Your task to perform on an android device: Go to CNN.com Image 0: 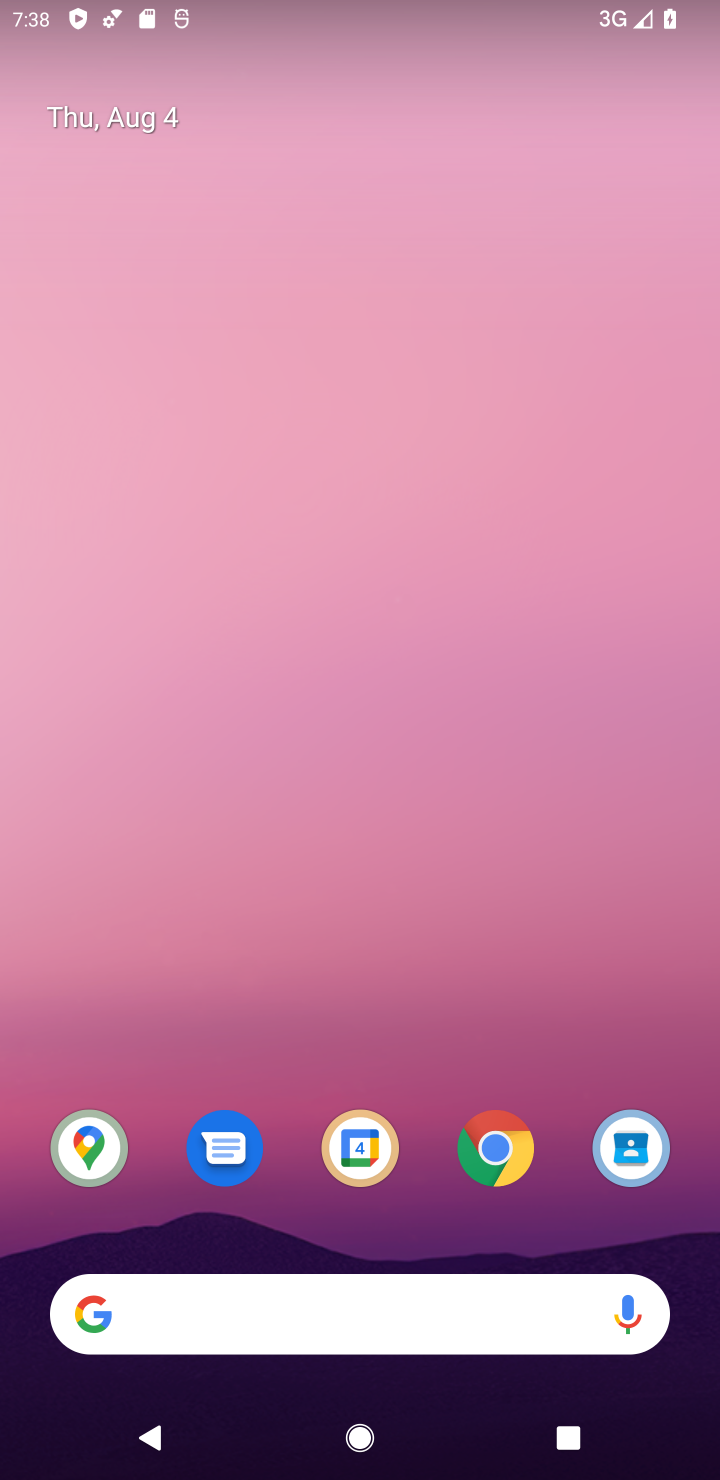
Step 0: click (479, 1149)
Your task to perform on an android device: Go to CNN.com Image 1: 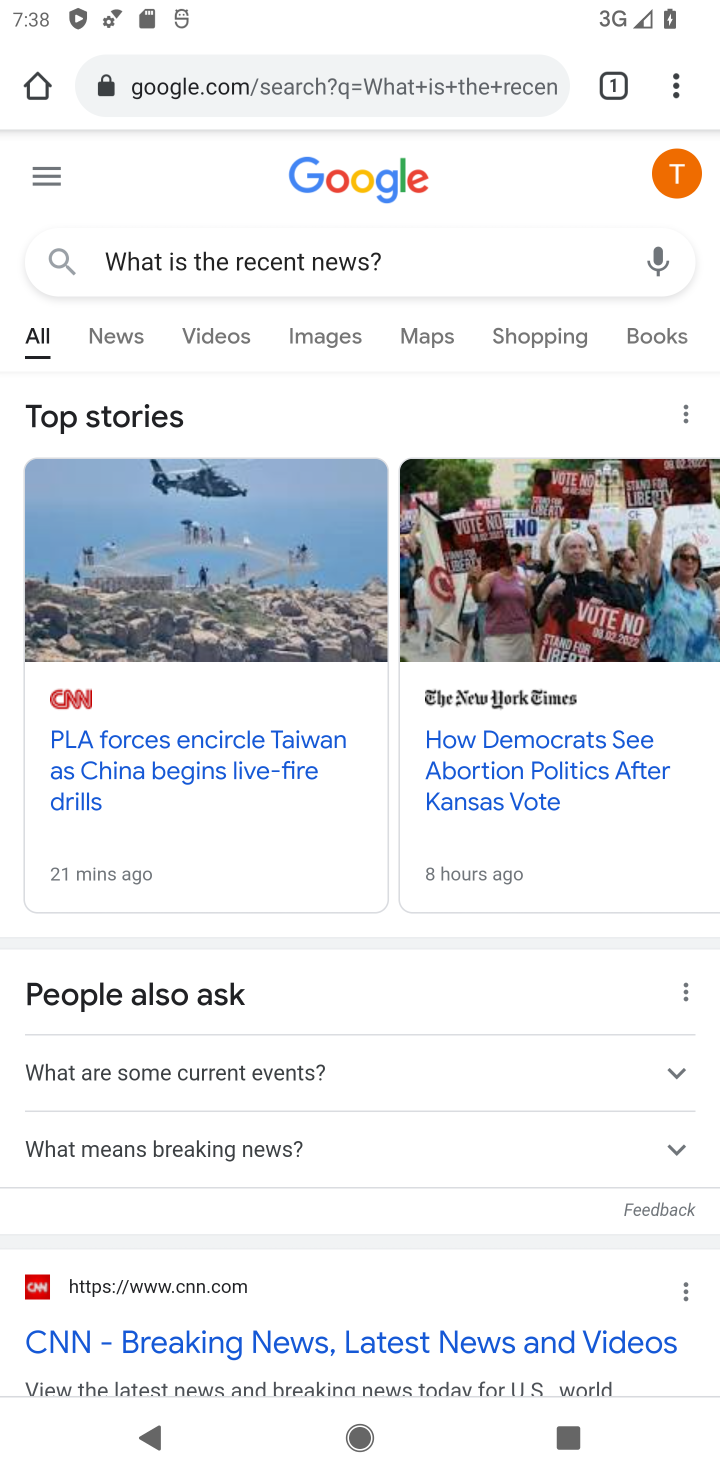
Step 1: click (393, 74)
Your task to perform on an android device: Go to CNN.com Image 2: 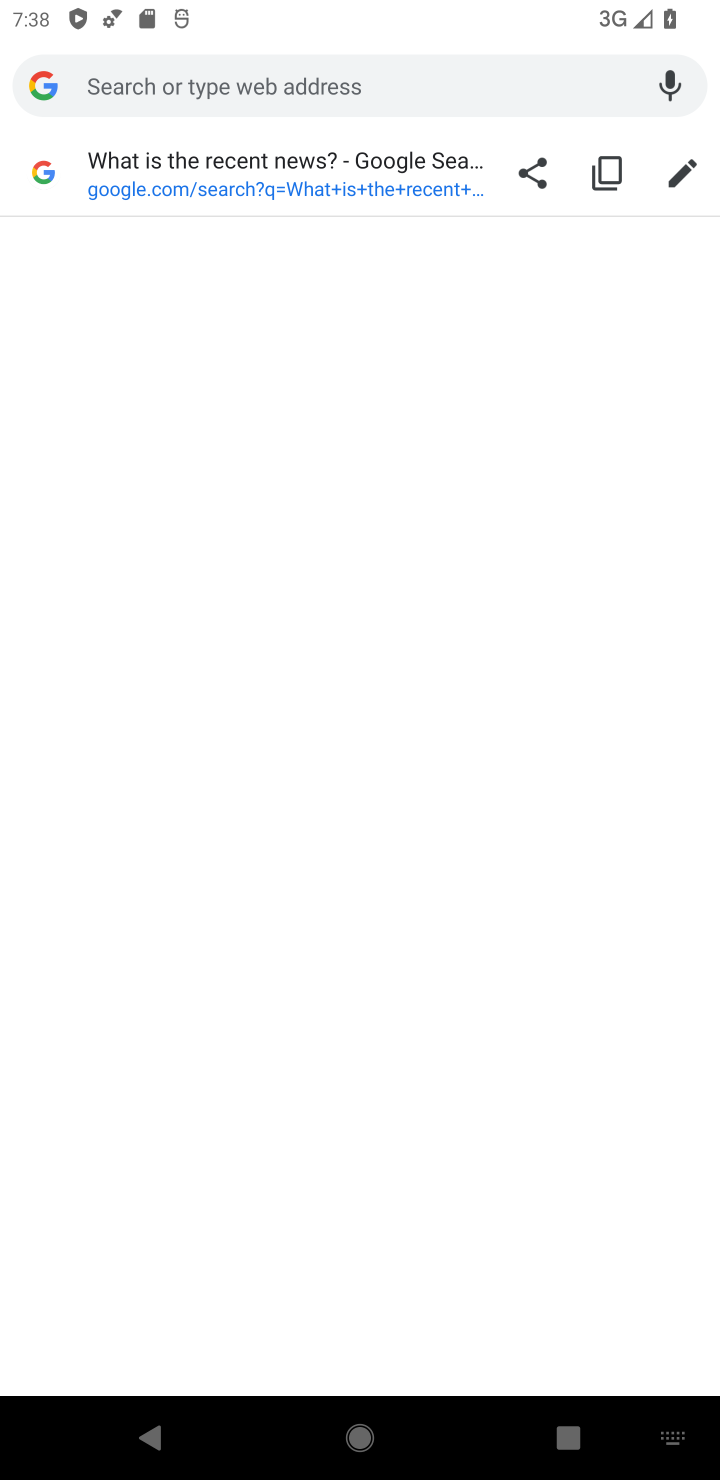
Step 2: type "cnn.com"
Your task to perform on an android device: Go to CNN.com Image 3: 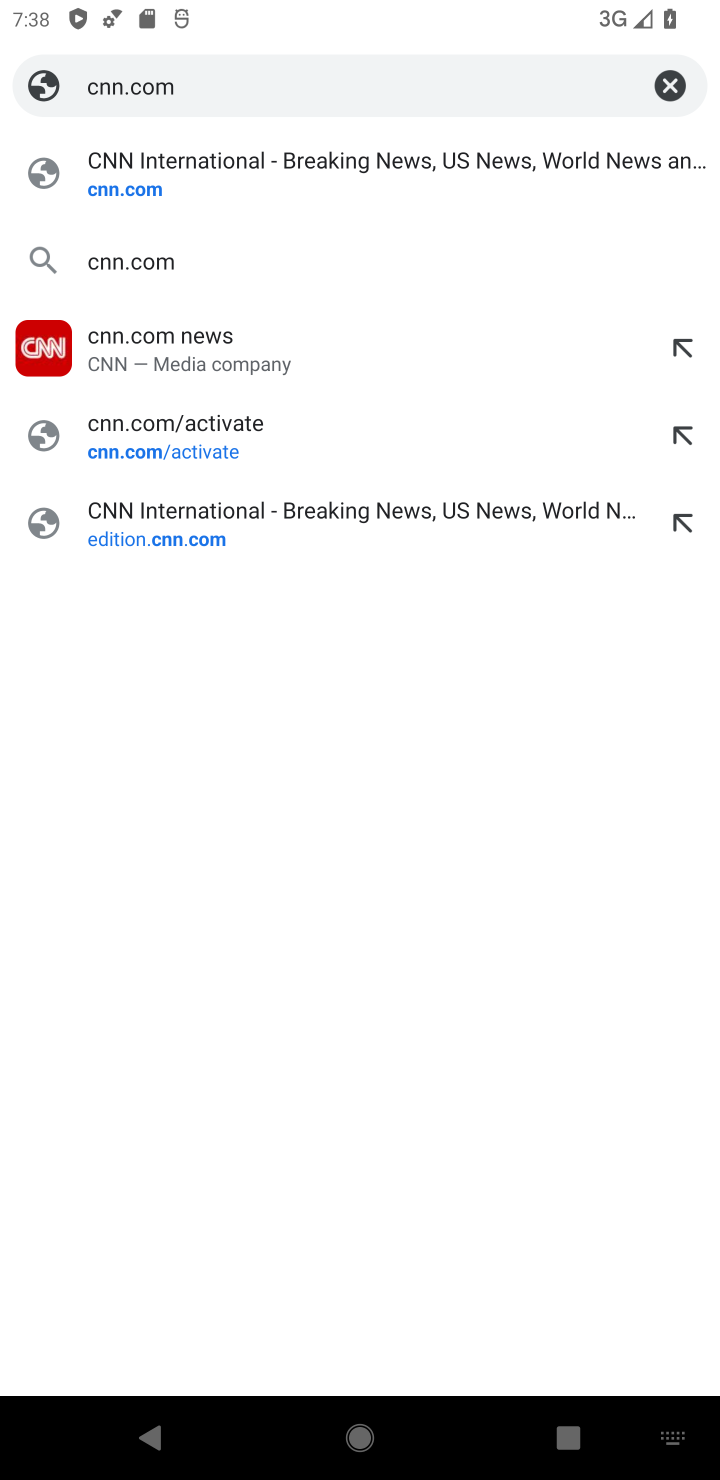
Step 3: click (361, 344)
Your task to perform on an android device: Go to CNN.com Image 4: 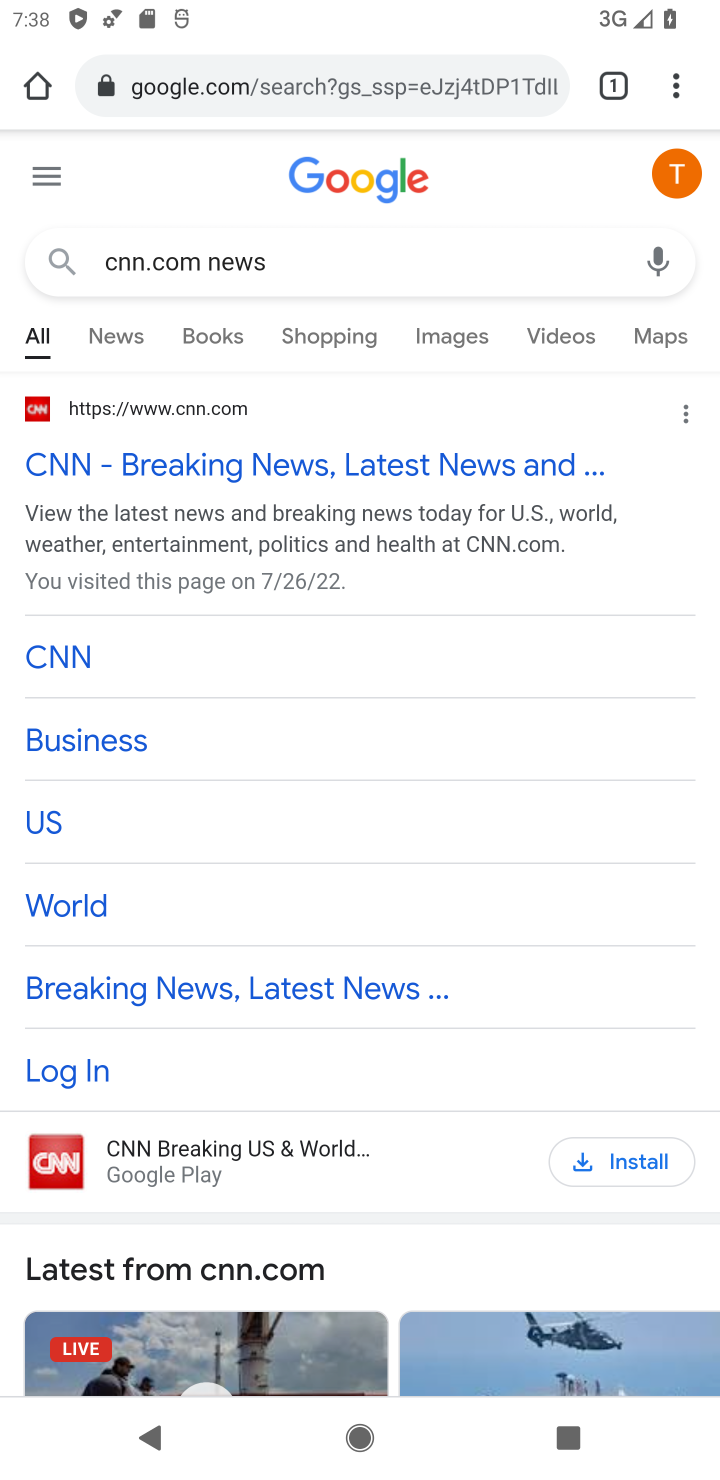
Step 4: click (155, 451)
Your task to perform on an android device: Go to CNN.com Image 5: 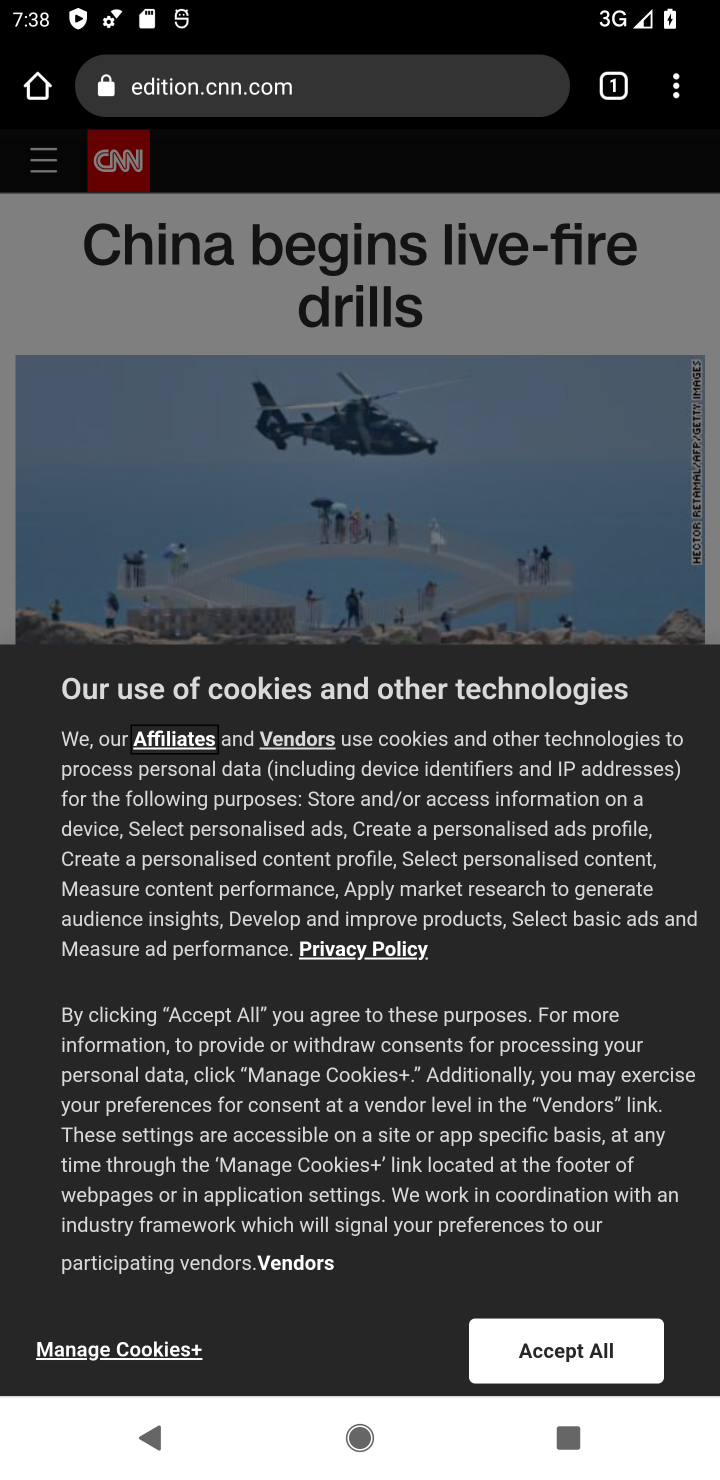
Step 5: task complete